Your task to perform on an android device: turn on priority inbox in the gmail app Image 0: 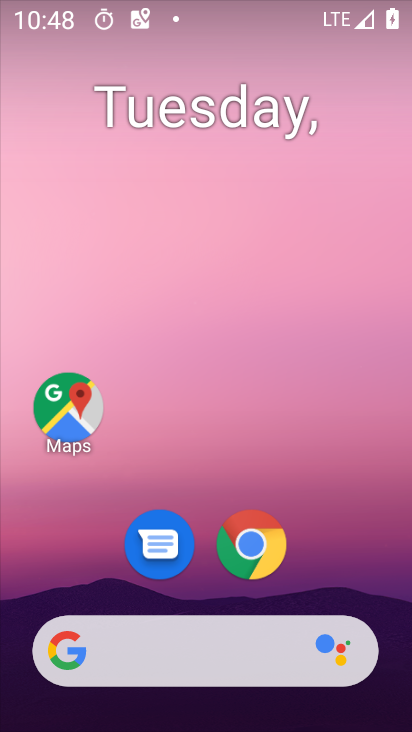
Step 0: drag from (330, 549) to (252, 296)
Your task to perform on an android device: turn on priority inbox in the gmail app Image 1: 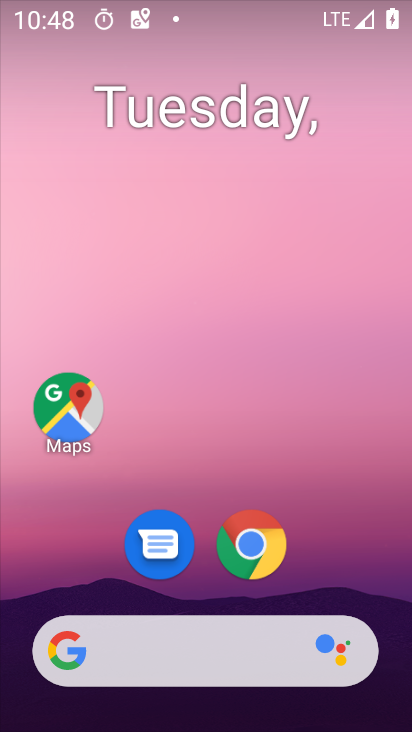
Step 1: drag from (397, 563) to (287, 172)
Your task to perform on an android device: turn on priority inbox in the gmail app Image 2: 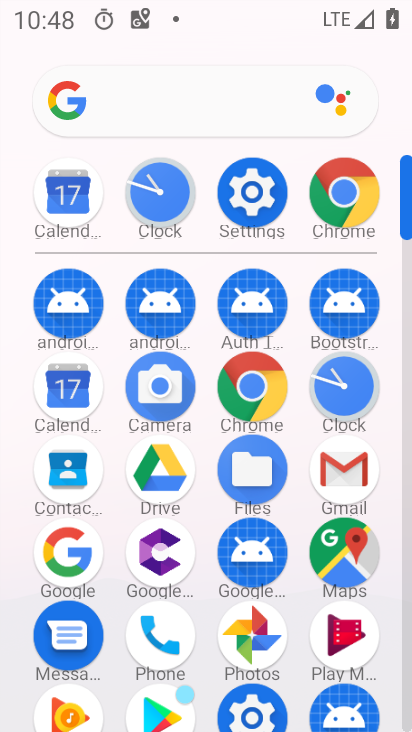
Step 2: click (353, 460)
Your task to perform on an android device: turn on priority inbox in the gmail app Image 3: 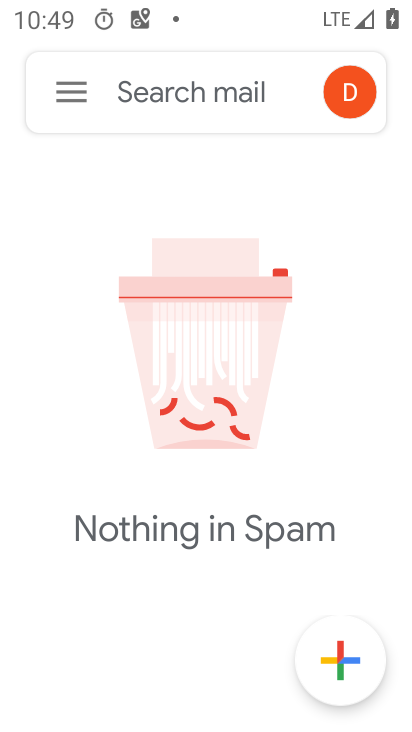
Step 3: click (52, 81)
Your task to perform on an android device: turn on priority inbox in the gmail app Image 4: 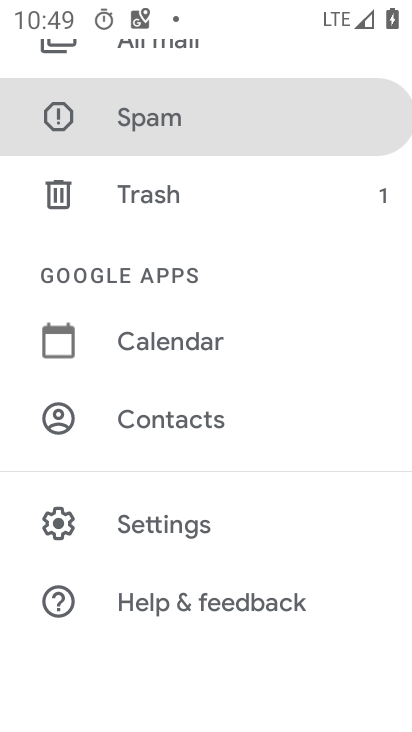
Step 4: click (303, 537)
Your task to perform on an android device: turn on priority inbox in the gmail app Image 5: 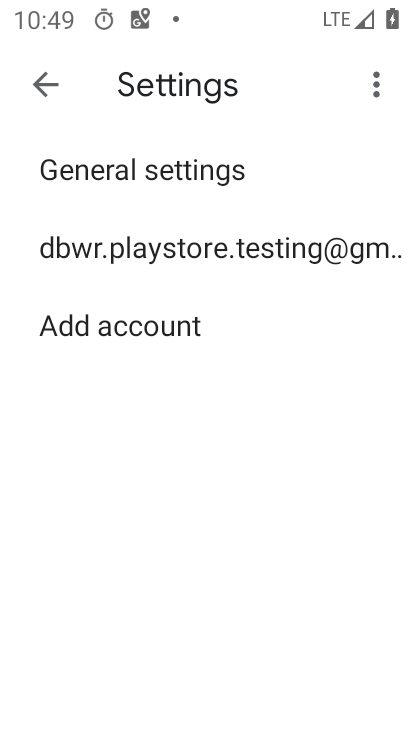
Step 5: click (364, 252)
Your task to perform on an android device: turn on priority inbox in the gmail app Image 6: 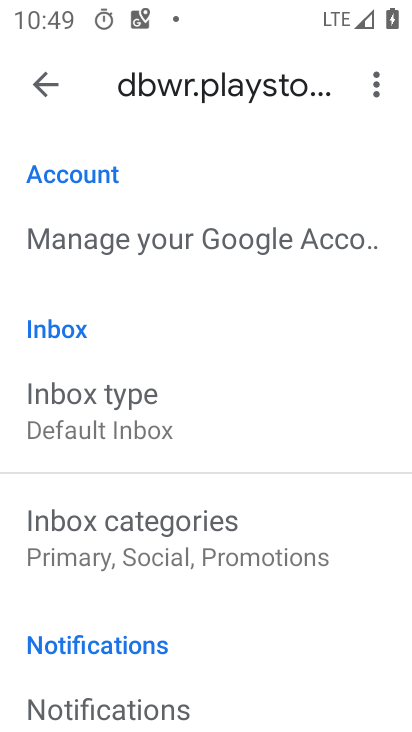
Step 6: click (257, 432)
Your task to perform on an android device: turn on priority inbox in the gmail app Image 7: 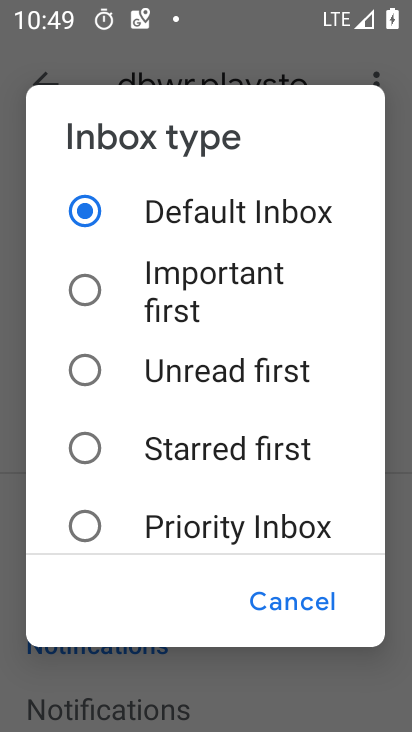
Step 7: click (286, 535)
Your task to perform on an android device: turn on priority inbox in the gmail app Image 8: 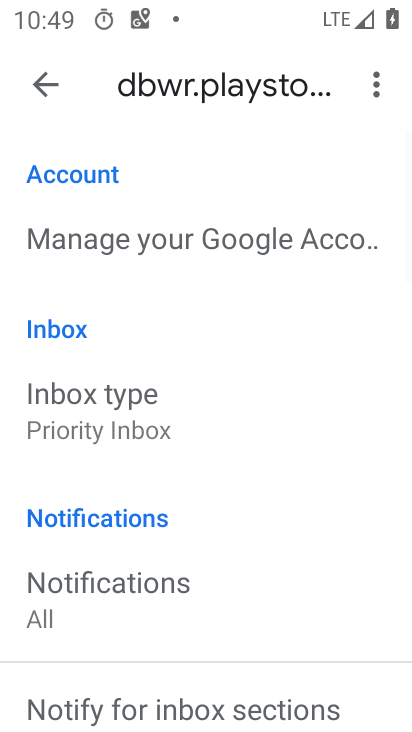
Step 8: task complete